Your task to perform on an android device: check the backup settings in the google photos Image 0: 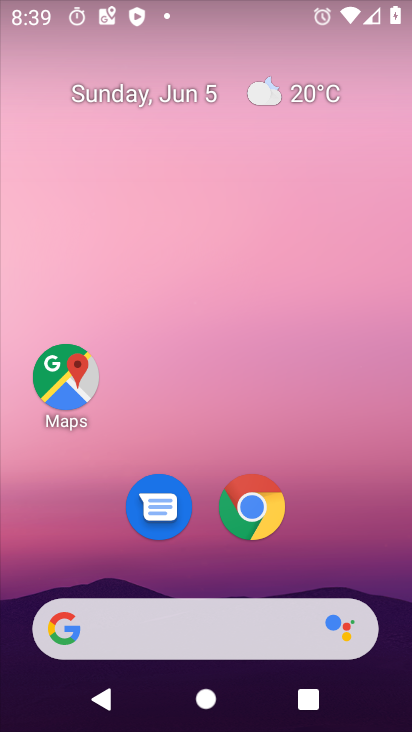
Step 0: drag from (371, 547) to (318, 47)
Your task to perform on an android device: check the backup settings in the google photos Image 1: 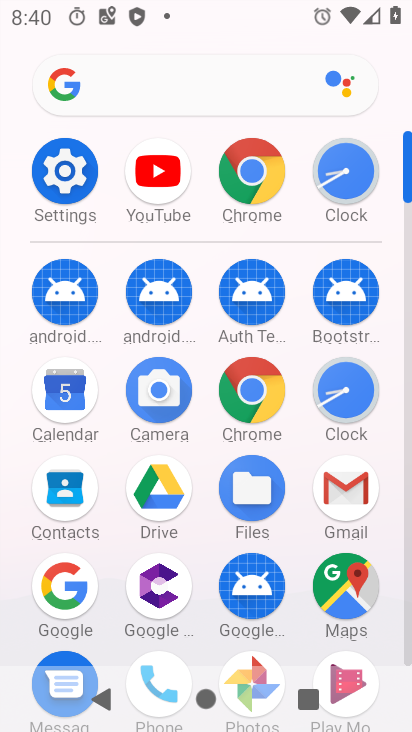
Step 1: drag from (24, 604) to (27, 402)
Your task to perform on an android device: check the backup settings in the google photos Image 2: 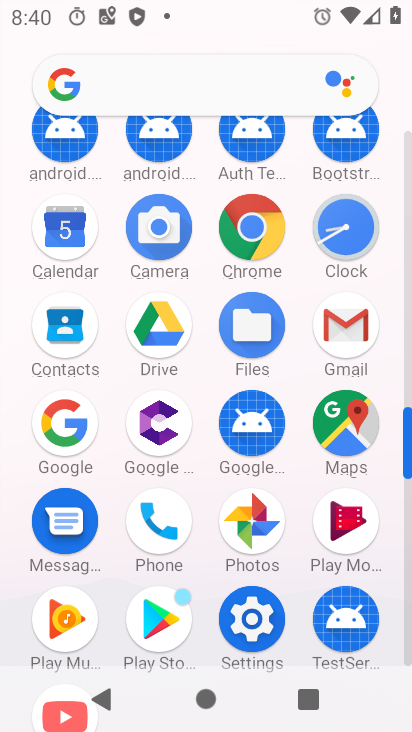
Step 2: click (253, 516)
Your task to perform on an android device: check the backup settings in the google photos Image 3: 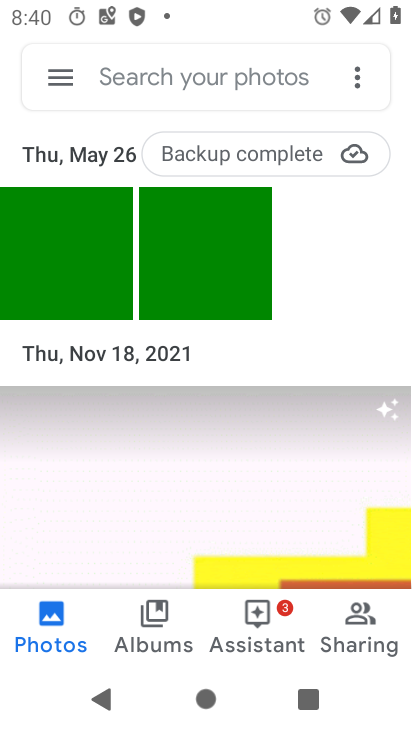
Step 3: click (57, 68)
Your task to perform on an android device: check the backup settings in the google photos Image 4: 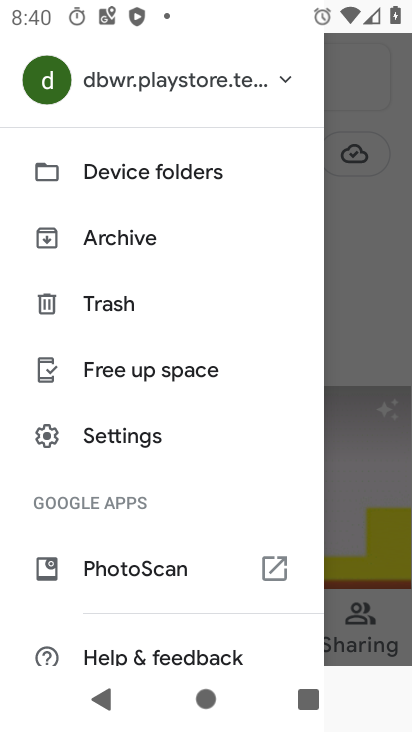
Step 4: click (139, 435)
Your task to perform on an android device: check the backup settings in the google photos Image 5: 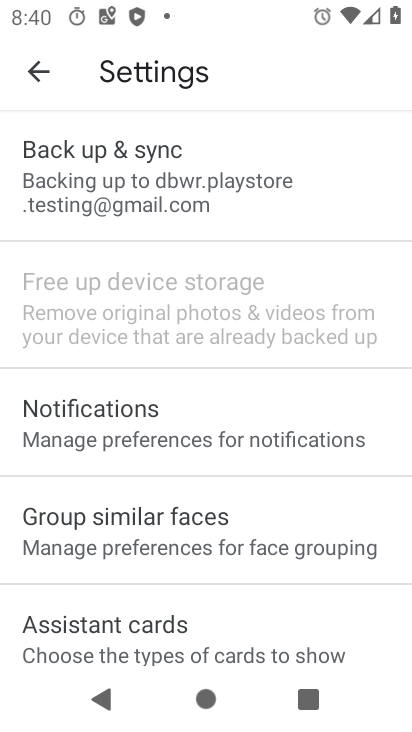
Step 5: click (283, 188)
Your task to perform on an android device: check the backup settings in the google photos Image 6: 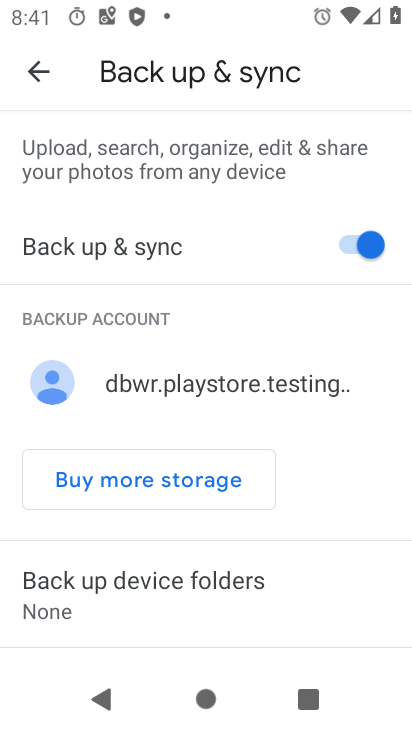
Step 6: task complete